Your task to perform on an android device: turn off sleep mode Image 0: 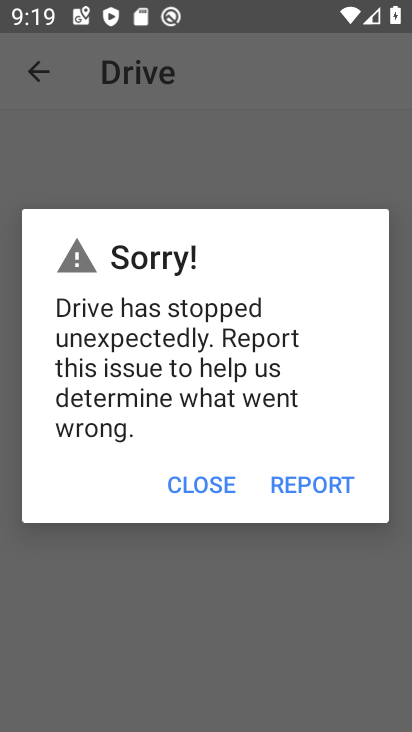
Step 0: press home button
Your task to perform on an android device: turn off sleep mode Image 1: 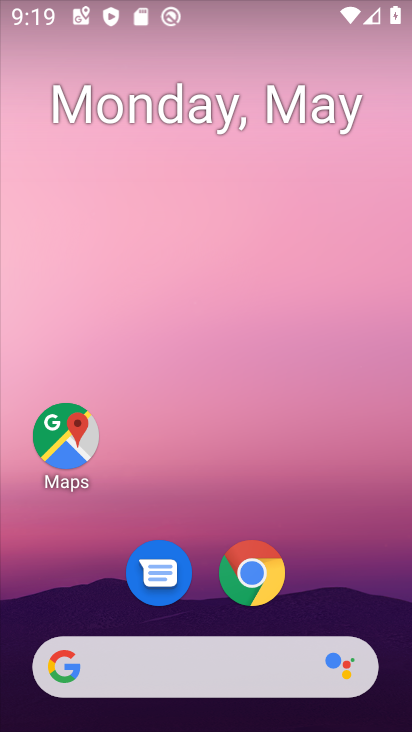
Step 1: drag from (346, 603) to (299, 220)
Your task to perform on an android device: turn off sleep mode Image 2: 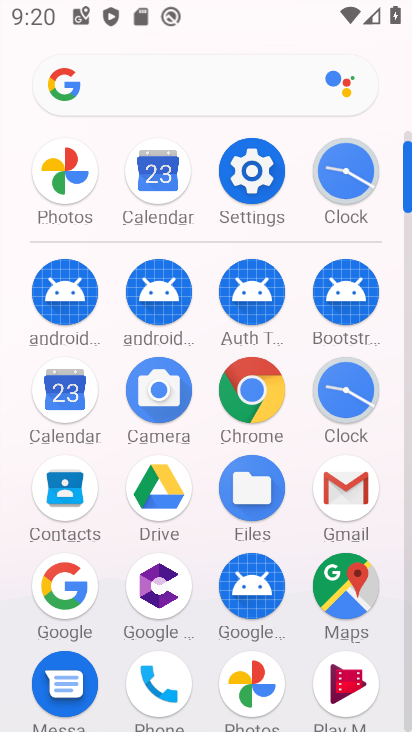
Step 2: click (249, 160)
Your task to perform on an android device: turn off sleep mode Image 3: 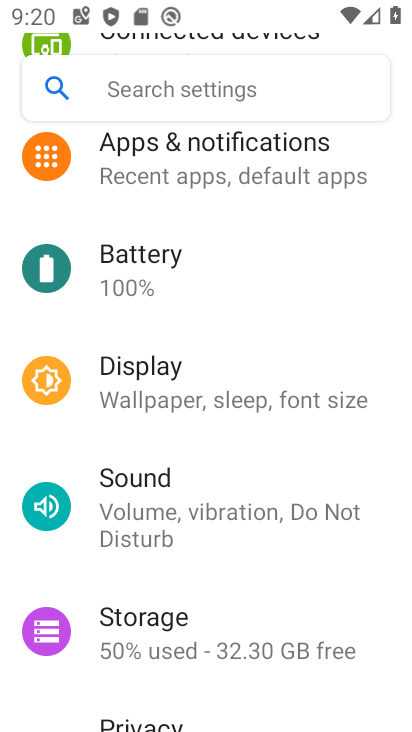
Step 3: click (268, 436)
Your task to perform on an android device: turn off sleep mode Image 4: 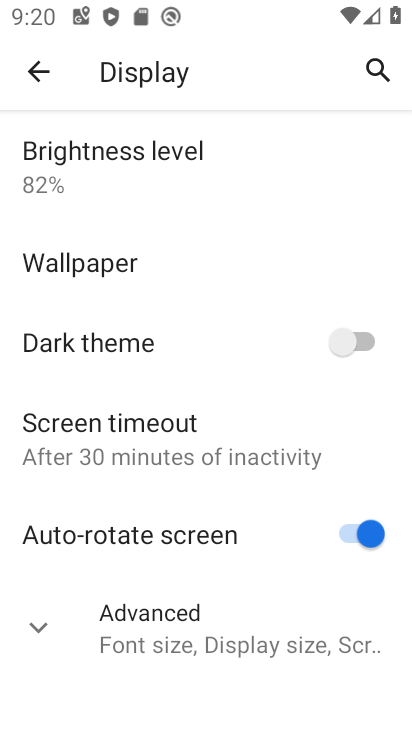
Step 4: click (193, 467)
Your task to perform on an android device: turn off sleep mode Image 5: 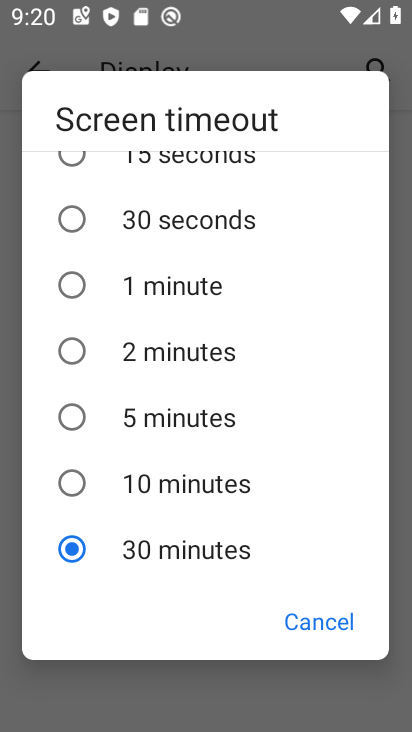
Step 5: click (180, 171)
Your task to perform on an android device: turn off sleep mode Image 6: 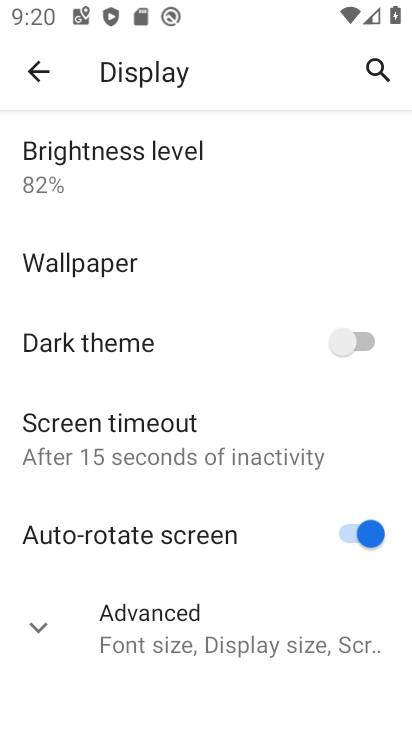
Step 6: task complete